Your task to perform on an android device: What's the weather going to be this weekend? Image 0: 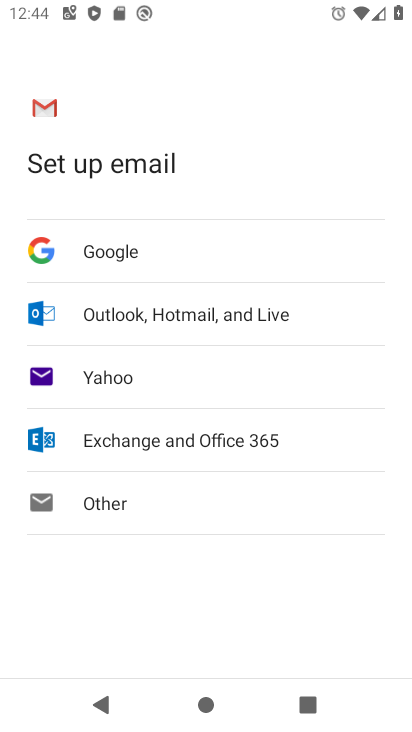
Step 0: press home button
Your task to perform on an android device: What's the weather going to be this weekend? Image 1: 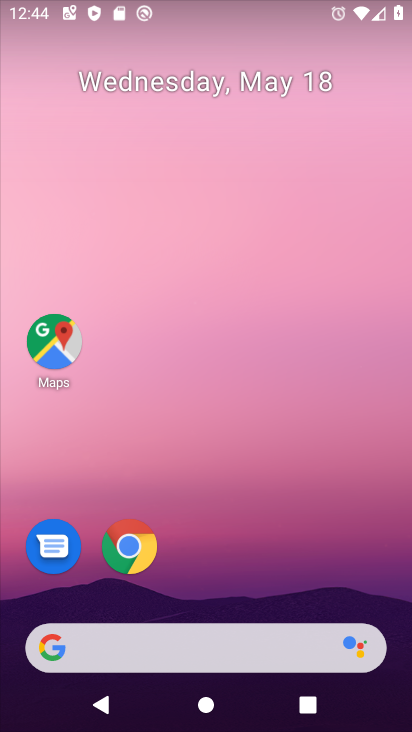
Step 1: click (143, 560)
Your task to perform on an android device: What's the weather going to be this weekend? Image 2: 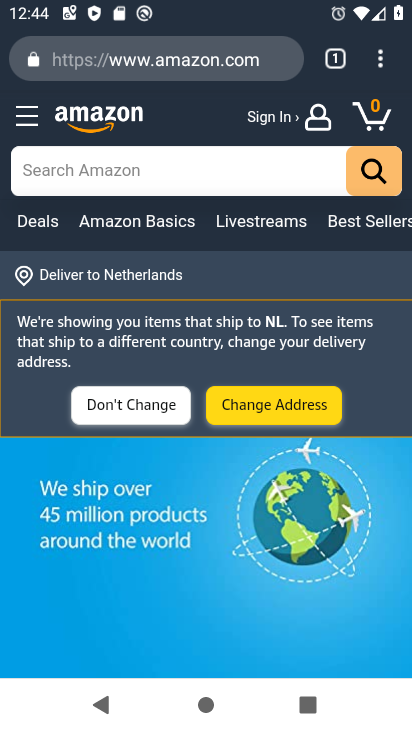
Step 2: click (234, 54)
Your task to perform on an android device: What's the weather going to be this weekend? Image 3: 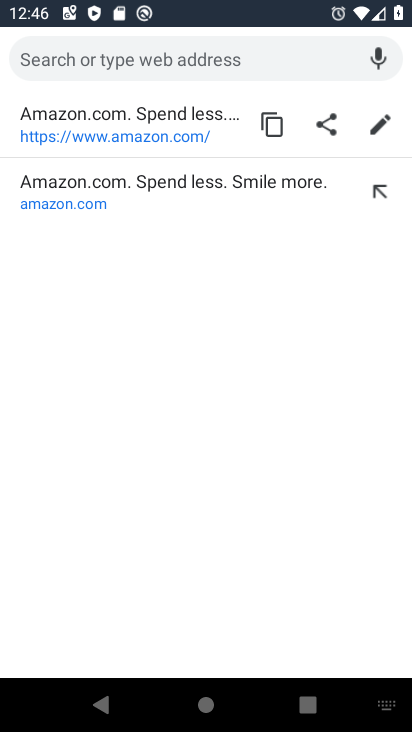
Step 3: type "What's the weather going to be this weekend?"
Your task to perform on an android device: What's the weather going to be this weekend? Image 4: 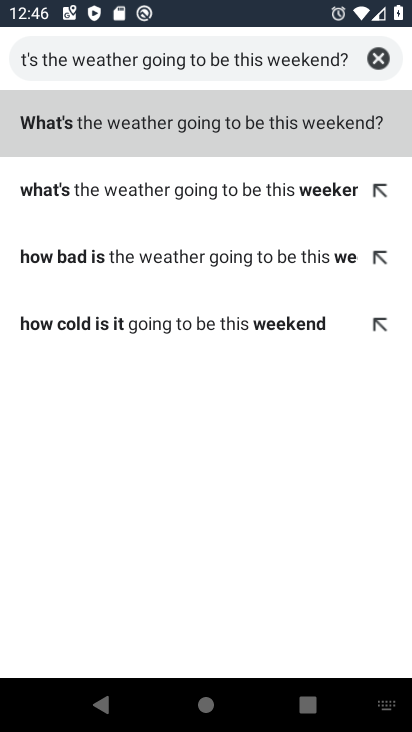
Step 4: click (233, 129)
Your task to perform on an android device: What's the weather going to be this weekend? Image 5: 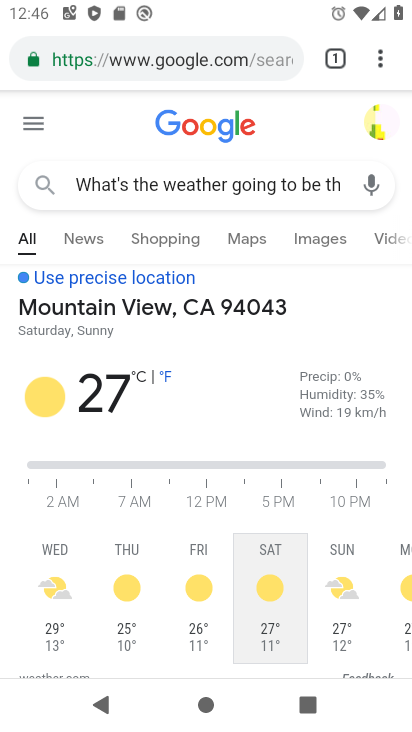
Step 5: task complete